Your task to perform on an android device: Open maps Image 0: 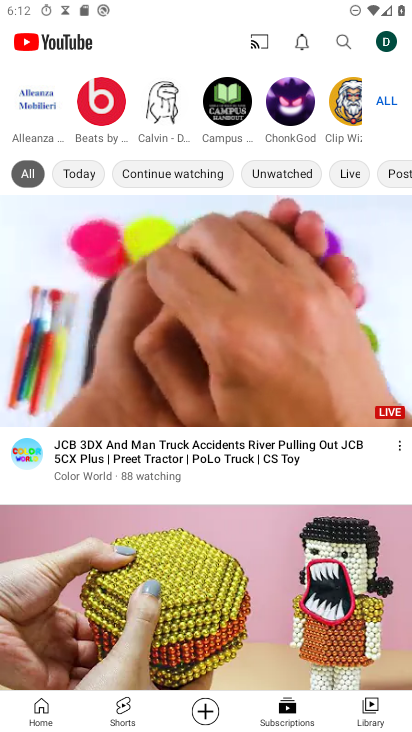
Step 0: press home button
Your task to perform on an android device: Open maps Image 1: 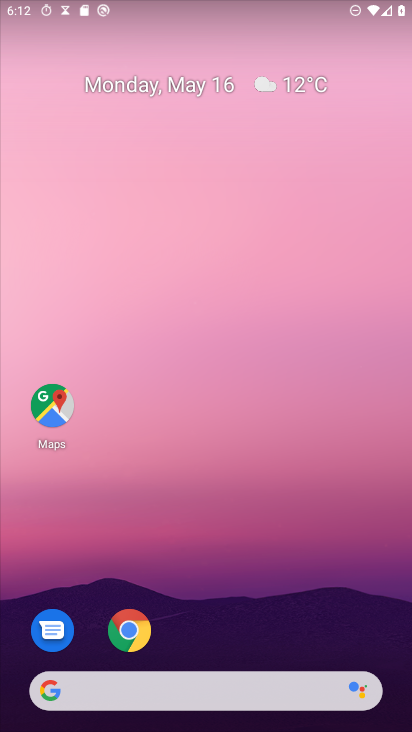
Step 1: click (45, 417)
Your task to perform on an android device: Open maps Image 2: 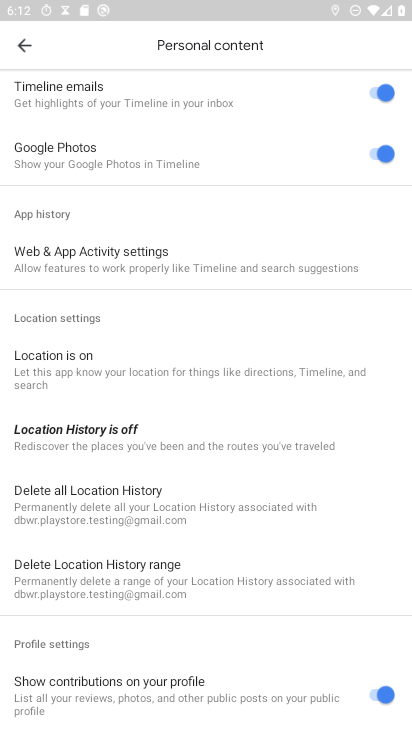
Step 2: click (23, 43)
Your task to perform on an android device: Open maps Image 3: 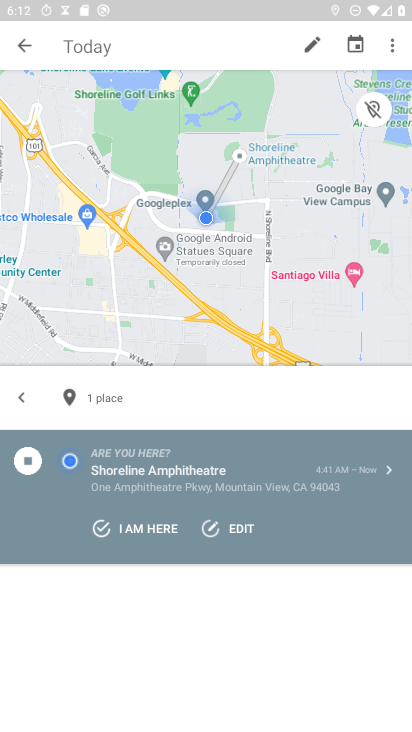
Step 3: click (19, 39)
Your task to perform on an android device: Open maps Image 4: 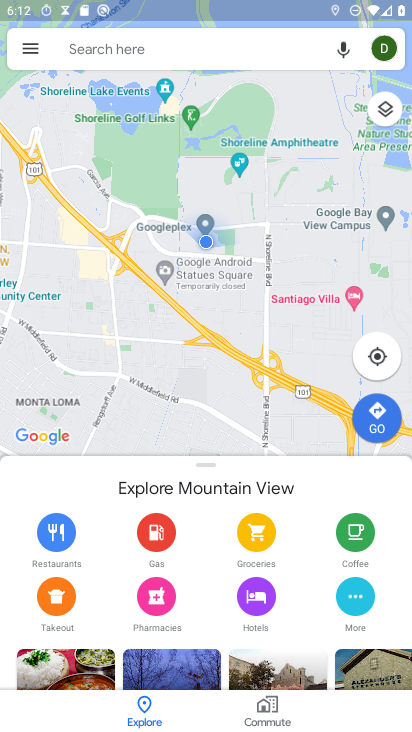
Step 4: task complete